Your task to perform on an android device: Open Google Chrome and open the bookmarks view Image 0: 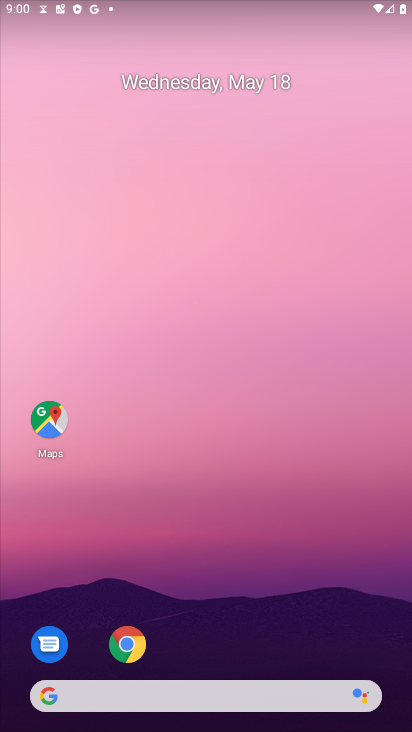
Step 0: click (127, 642)
Your task to perform on an android device: Open Google Chrome and open the bookmarks view Image 1: 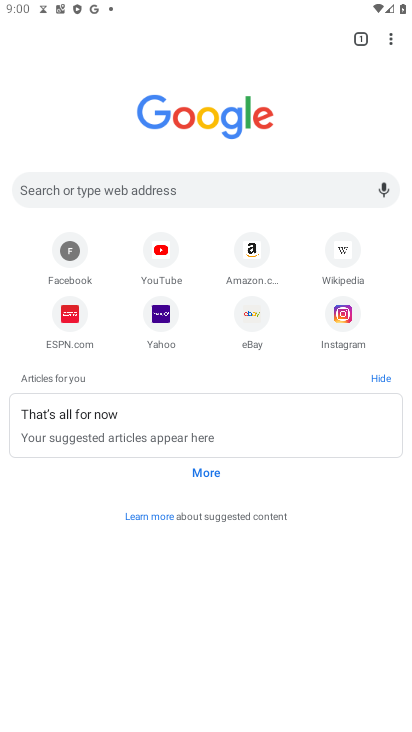
Step 1: click (391, 36)
Your task to perform on an android device: Open Google Chrome and open the bookmarks view Image 2: 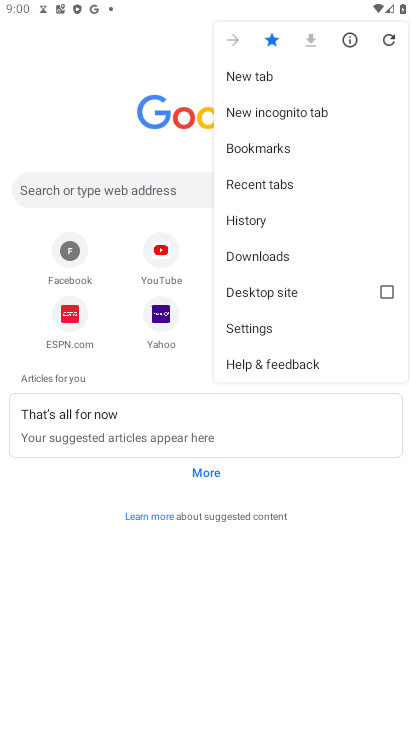
Step 2: click (242, 141)
Your task to perform on an android device: Open Google Chrome and open the bookmarks view Image 3: 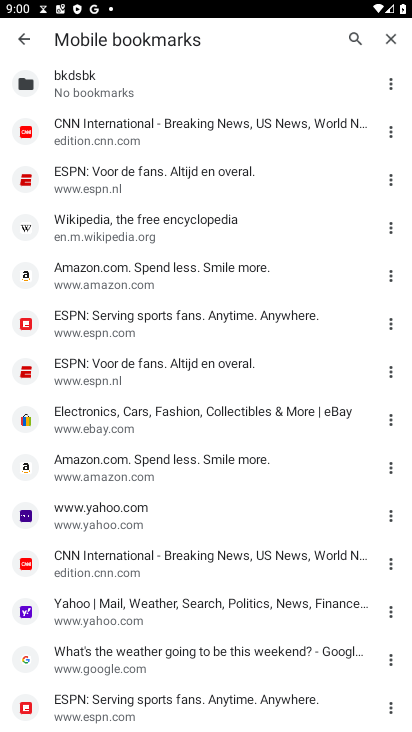
Step 3: task complete